Your task to perform on an android device: allow cookies in the chrome app Image 0: 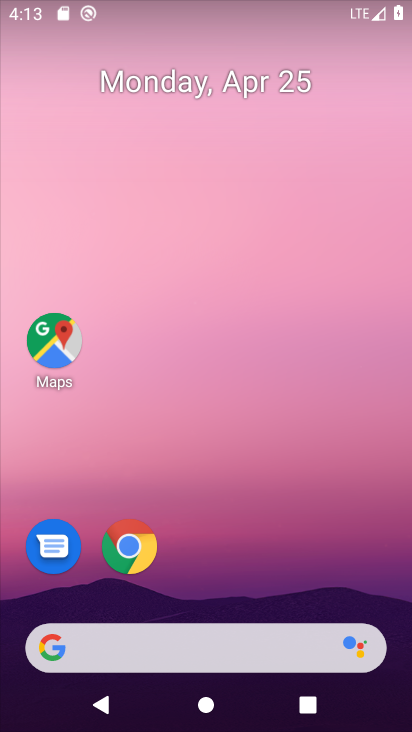
Step 0: click (125, 548)
Your task to perform on an android device: allow cookies in the chrome app Image 1: 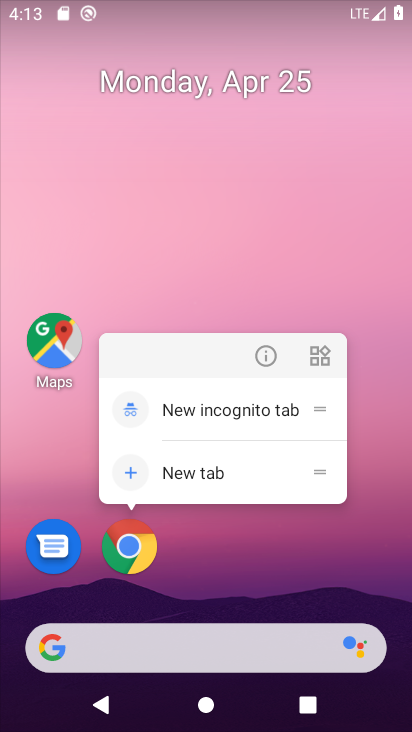
Step 1: click (125, 549)
Your task to perform on an android device: allow cookies in the chrome app Image 2: 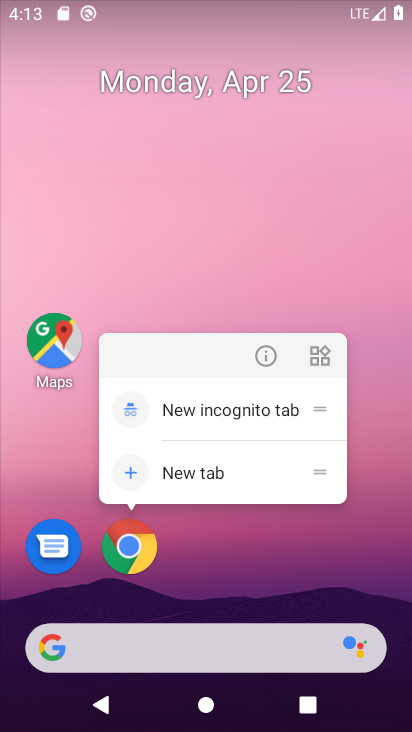
Step 2: click (127, 573)
Your task to perform on an android device: allow cookies in the chrome app Image 3: 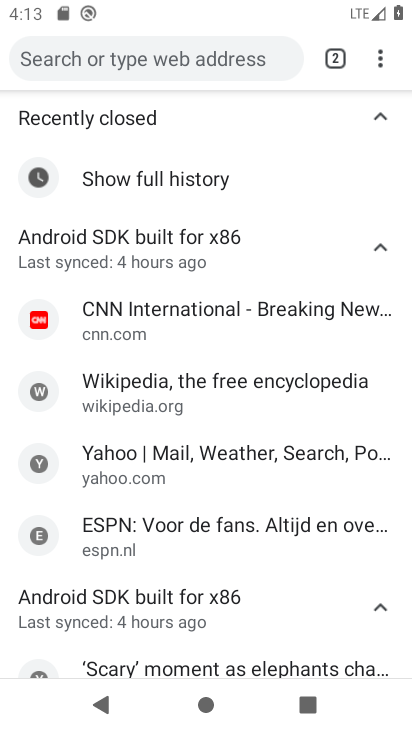
Step 3: click (375, 67)
Your task to perform on an android device: allow cookies in the chrome app Image 4: 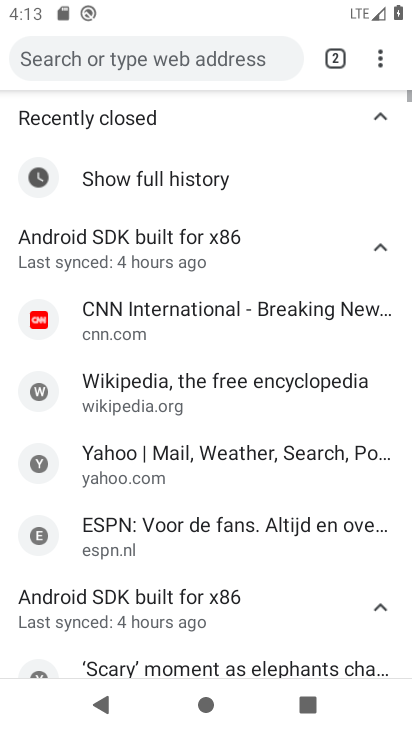
Step 4: click (375, 67)
Your task to perform on an android device: allow cookies in the chrome app Image 5: 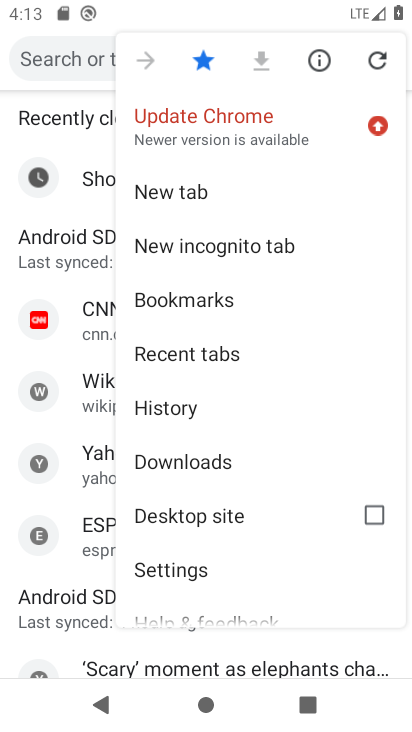
Step 5: click (264, 577)
Your task to perform on an android device: allow cookies in the chrome app Image 6: 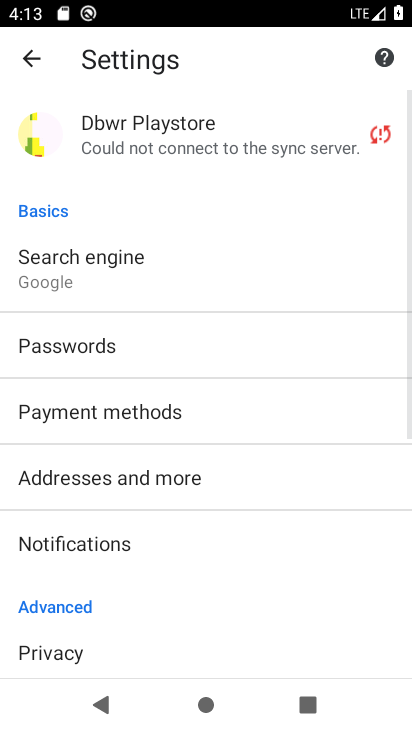
Step 6: drag from (166, 635) to (234, 225)
Your task to perform on an android device: allow cookies in the chrome app Image 7: 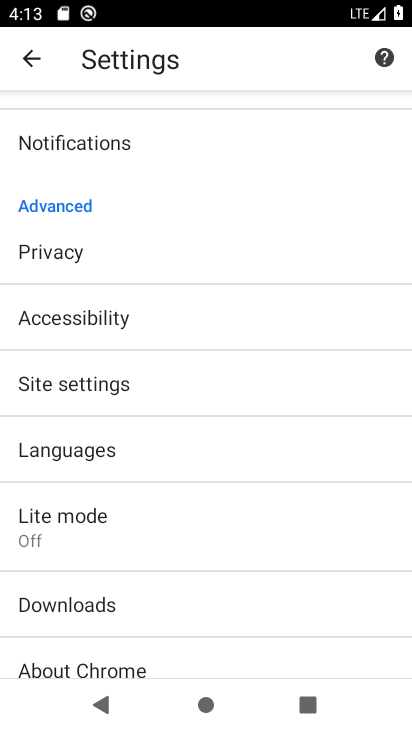
Step 7: click (174, 370)
Your task to perform on an android device: allow cookies in the chrome app Image 8: 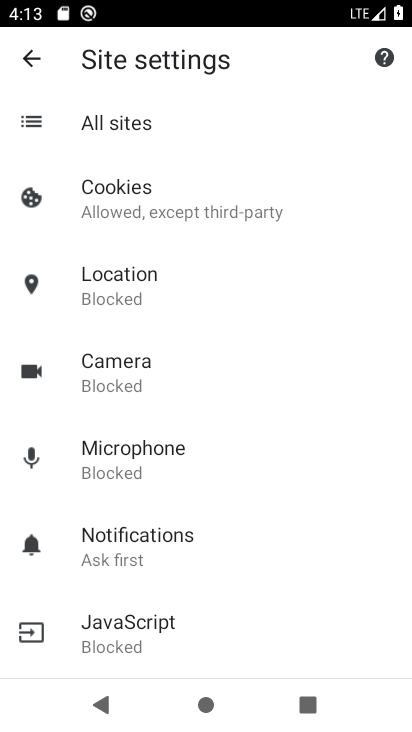
Step 8: click (194, 202)
Your task to perform on an android device: allow cookies in the chrome app Image 9: 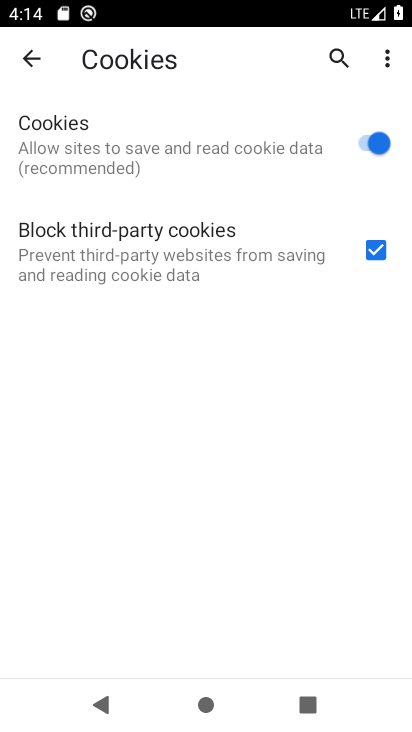
Step 9: task complete